Your task to perform on an android device: turn off location Image 0: 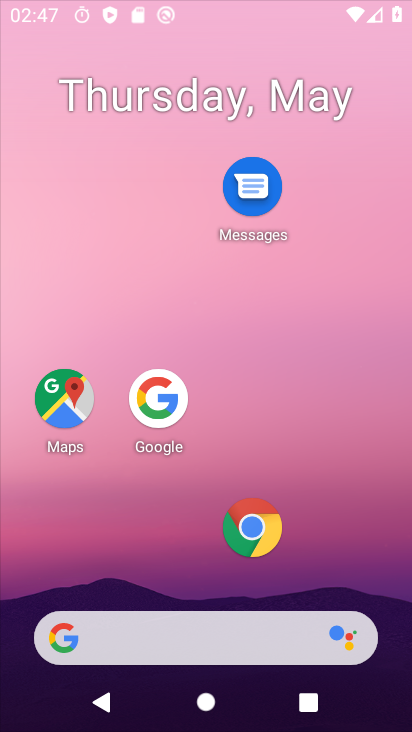
Step 0: click (240, 299)
Your task to perform on an android device: turn off location Image 1: 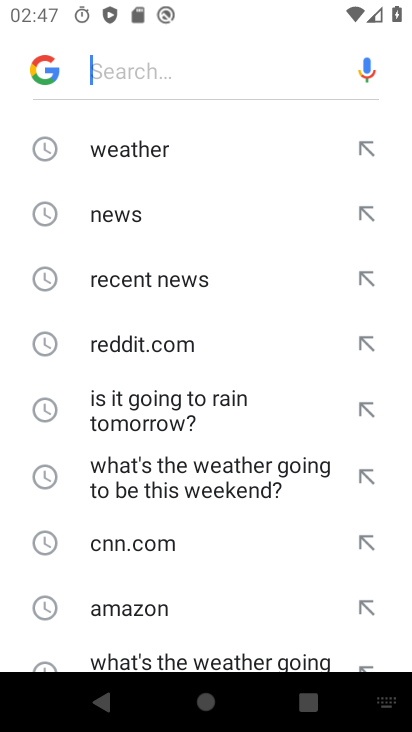
Step 1: press home button
Your task to perform on an android device: turn off location Image 2: 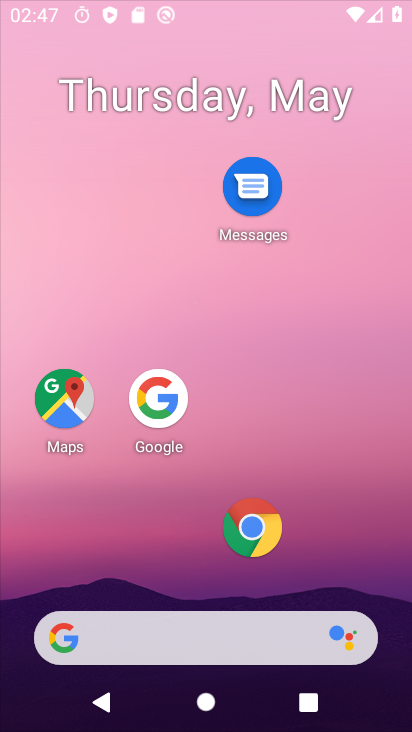
Step 2: drag from (209, 609) to (209, 86)
Your task to perform on an android device: turn off location Image 3: 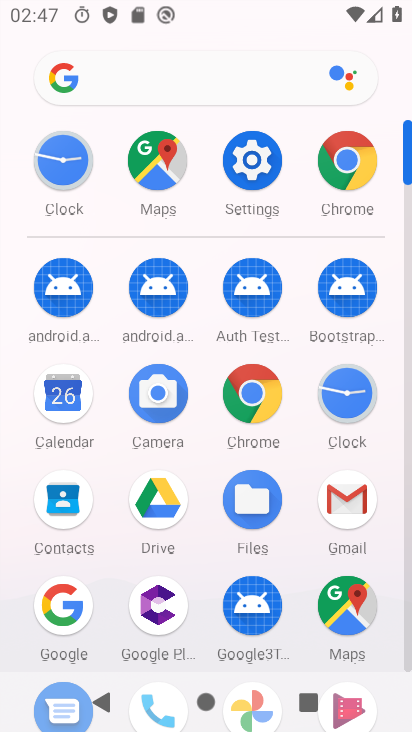
Step 3: drag from (192, 621) to (208, 219)
Your task to perform on an android device: turn off location Image 4: 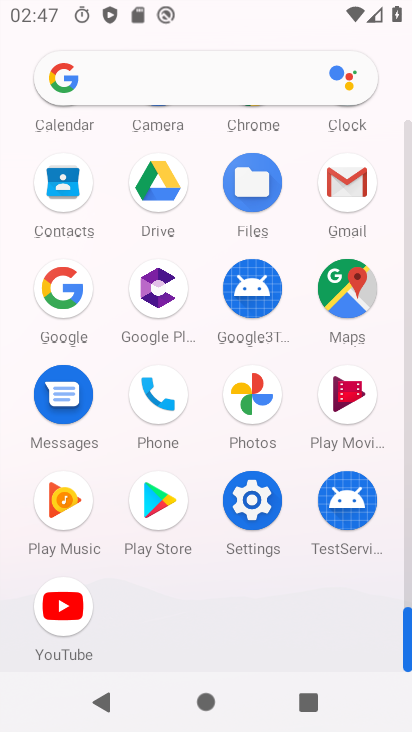
Step 4: drag from (213, 576) to (230, 297)
Your task to perform on an android device: turn off location Image 5: 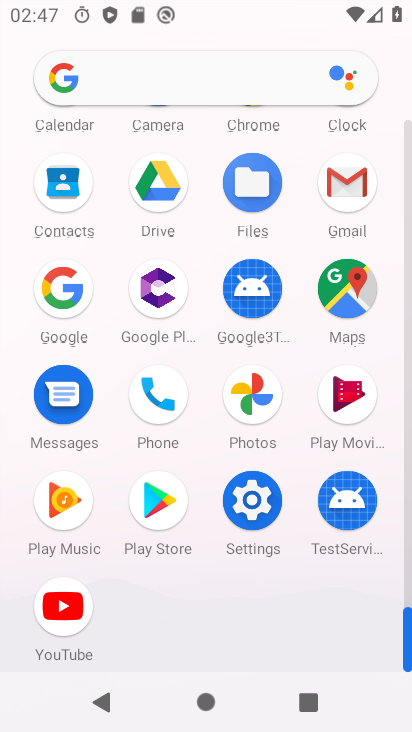
Step 5: click (251, 510)
Your task to perform on an android device: turn off location Image 6: 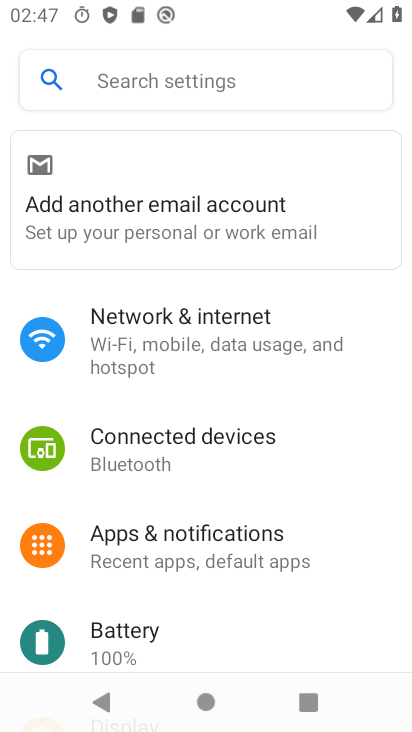
Step 6: drag from (248, 571) to (333, 113)
Your task to perform on an android device: turn off location Image 7: 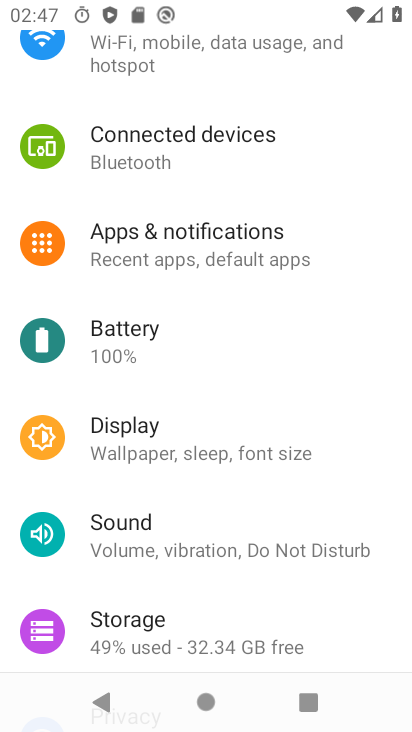
Step 7: drag from (160, 590) to (220, 168)
Your task to perform on an android device: turn off location Image 8: 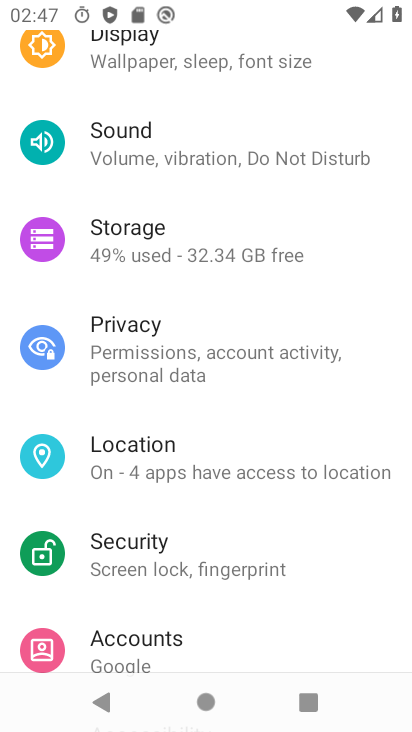
Step 8: drag from (202, 555) to (279, 81)
Your task to perform on an android device: turn off location Image 9: 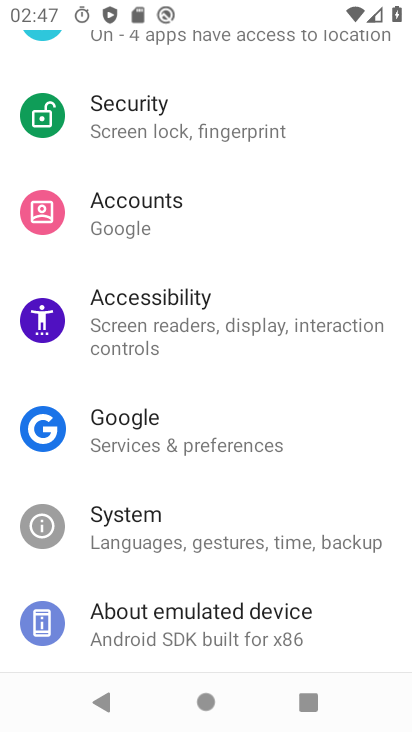
Step 9: drag from (208, 590) to (241, 176)
Your task to perform on an android device: turn off location Image 10: 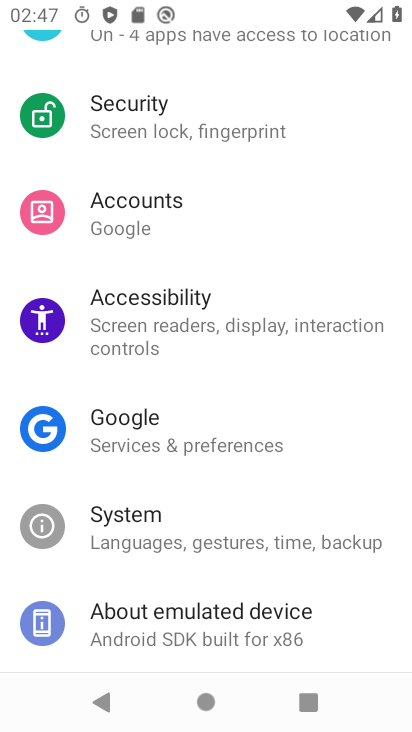
Step 10: drag from (198, 113) to (246, 567)
Your task to perform on an android device: turn off location Image 11: 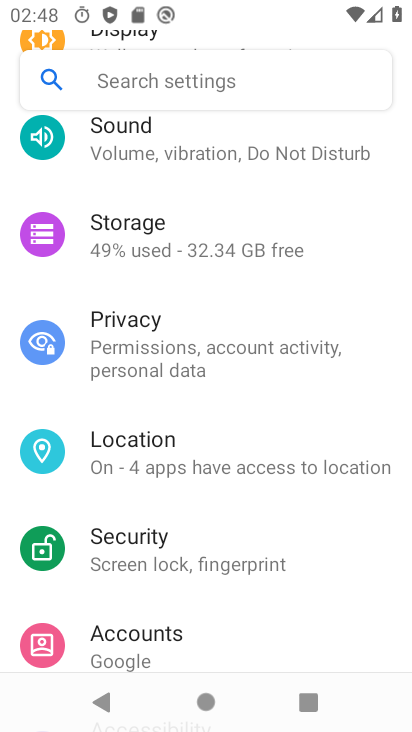
Step 11: click (172, 446)
Your task to perform on an android device: turn off location Image 12: 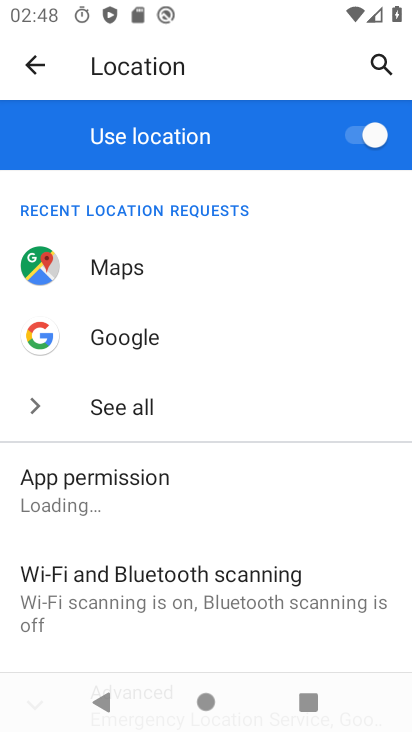
Step 12: drag from (156, 641) to (189, 270)
Your task to perform on an android device: turn off location Image 13: 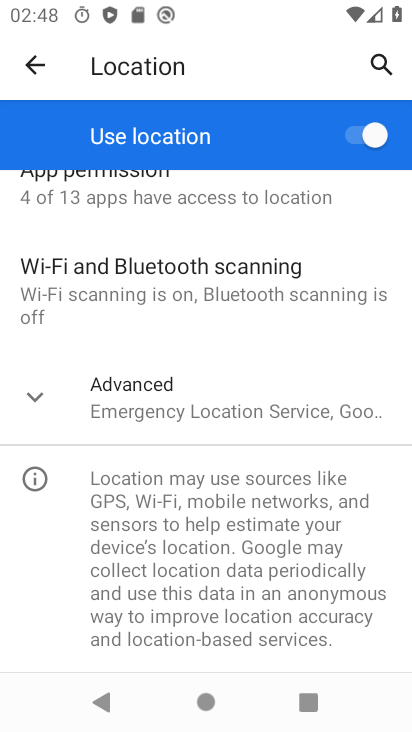
Step 13: click (349, 149)
Your task to perform on an android device: turn off location Image 14: 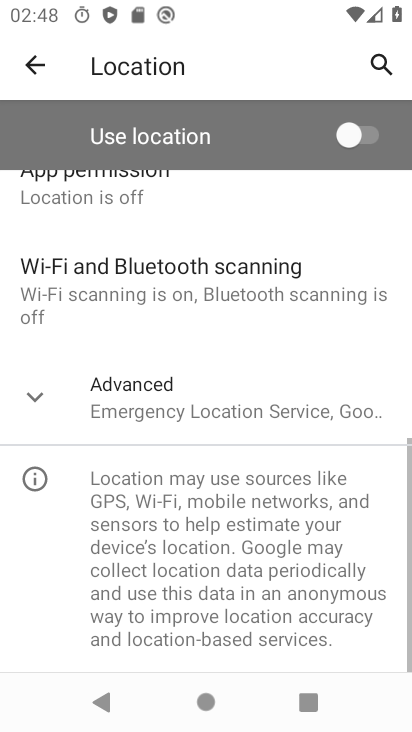
Step 14: task complete